Your task to perform on an android device: add a label to a message in the gmail app Image 0: 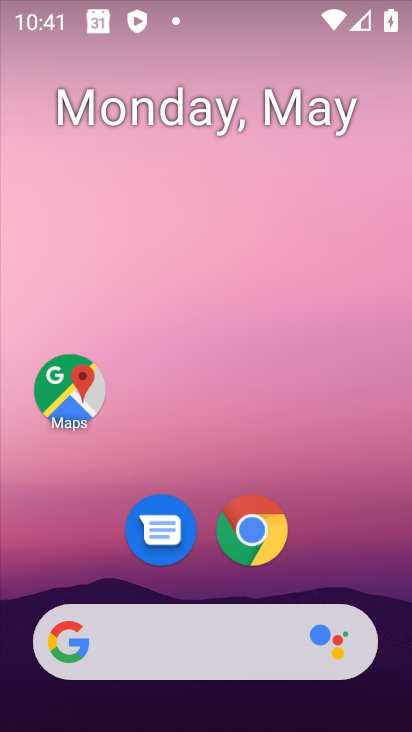
Step 0: drag from (324, 547) to (265, 48)
Your task to perform on an android device: add a label to a message in the gmail app Image 1: 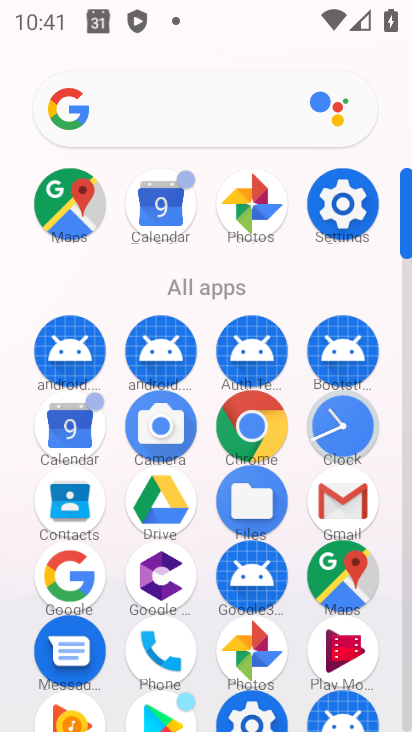
Step 1: click (340, 502)
Your task to perform on an android device: add a label to a message in the gmail app Image 2: 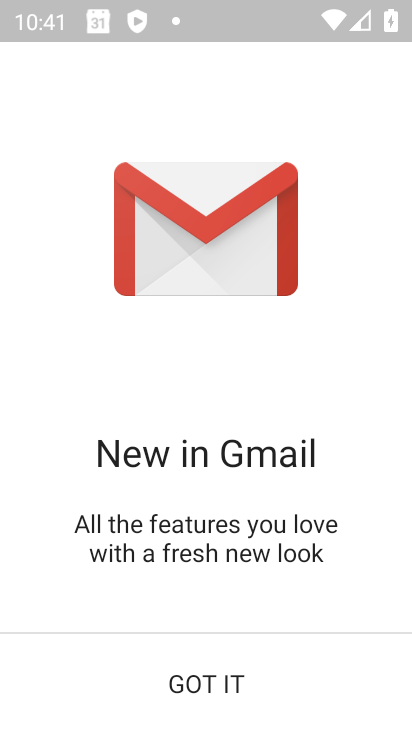
Step 2: click (208, 678)
Your task to perform on an android device: add a label to a message in the gmail app Image 3: 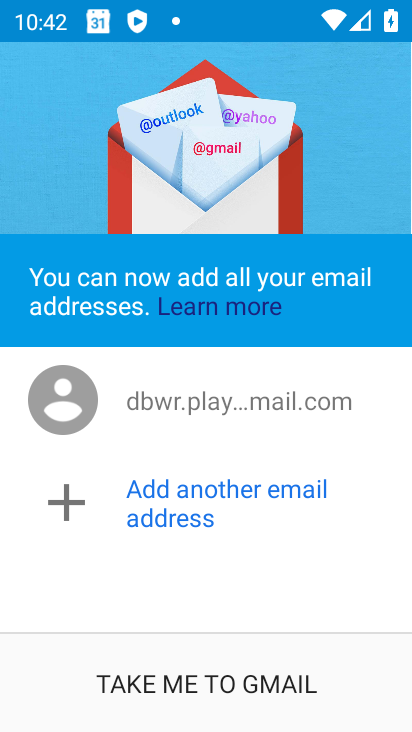
Step 3: click (208, 678)
Your task to perform on an android device: add a label to a message in the gmail app Image 4: 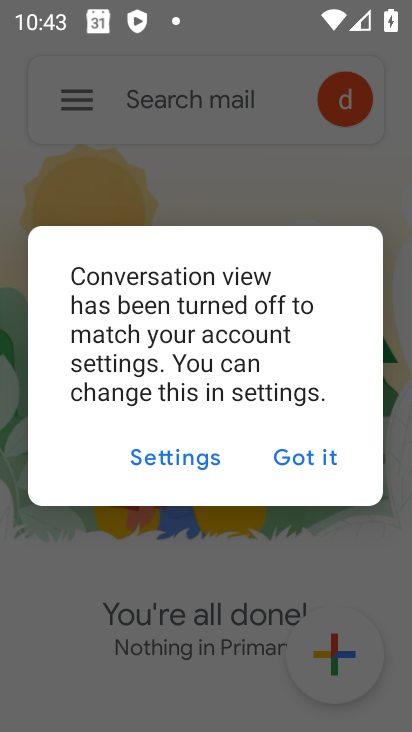
Step 4: click (284, 461)
Your task to perform on an android device: add a label to a message in the gmail app Image 5: 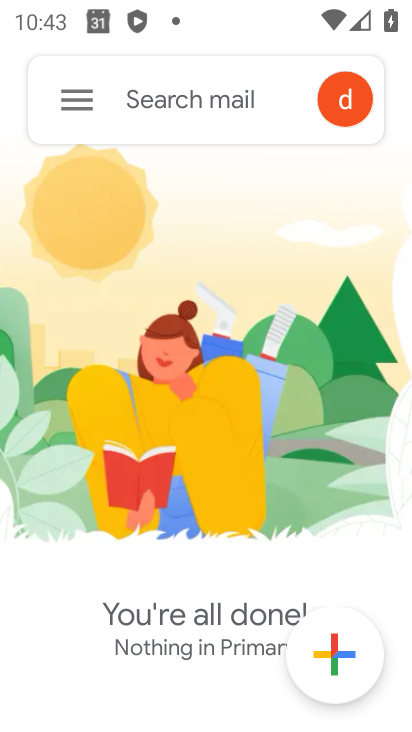
Step 5: click (65, 106)
Your task to perform on an android device: add a label to a message in the gmail app Image 6: 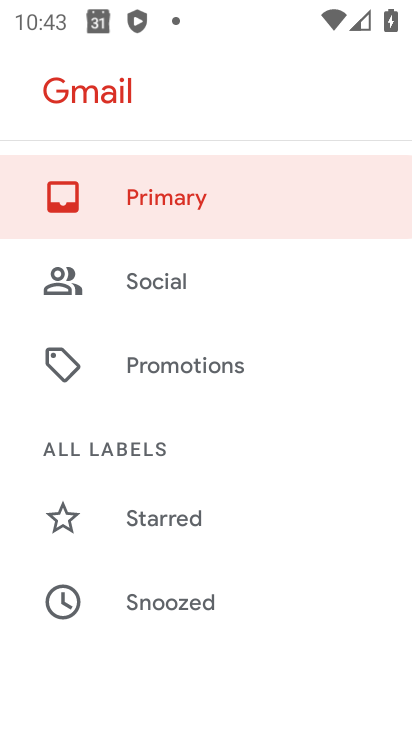
Step 6: drag from (205, 488) to (207, 365)
Your task to perform on an android device: add a label to a message in the gmail app Image 7: 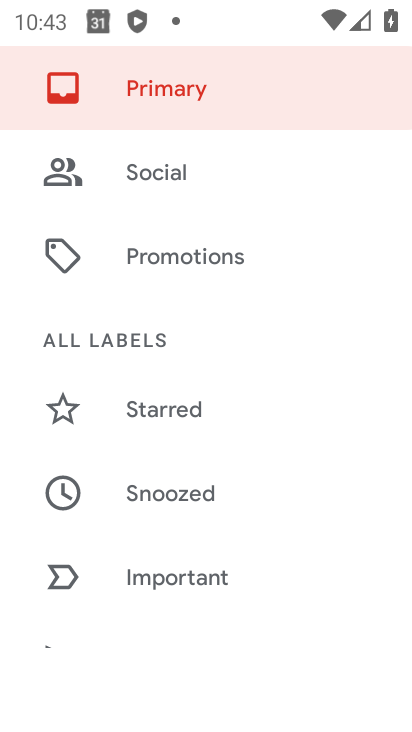
Step 7: click (204, 483)
Your task to perform on an android device: add a label to a message in the gmail app Image 8: 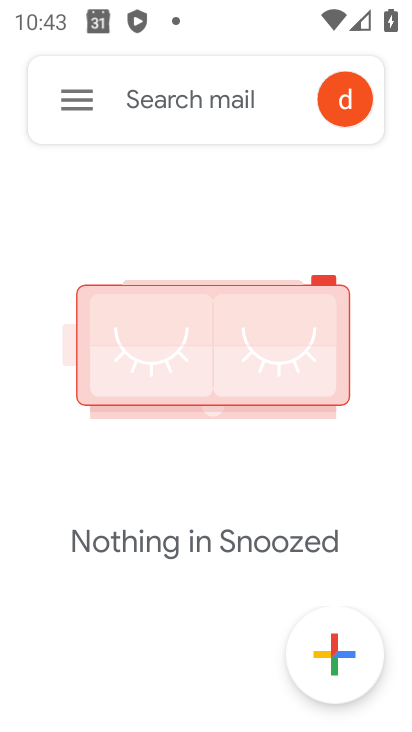
Step 8: click (63, 102)
Your task to perform on an android device: add a label to a message in the gmail app Image 9: 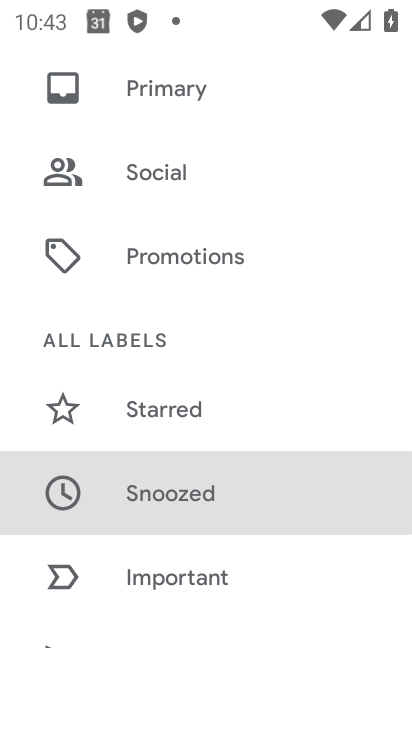
Step 9: drag from (171, 603) to (214, 360)
Your task to perform on an android device: add a label to a message in the gmail app Image 10: 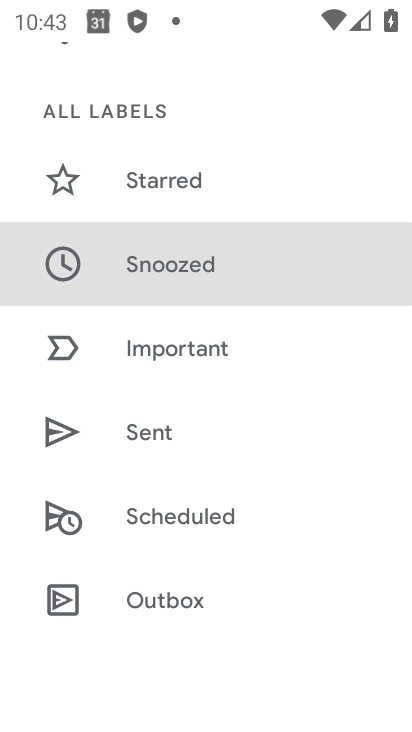
Step 10: drag from (189, 598) to (283, 338)
Your task to perform on an android device: add a label to a message in the gmail app Image 11: 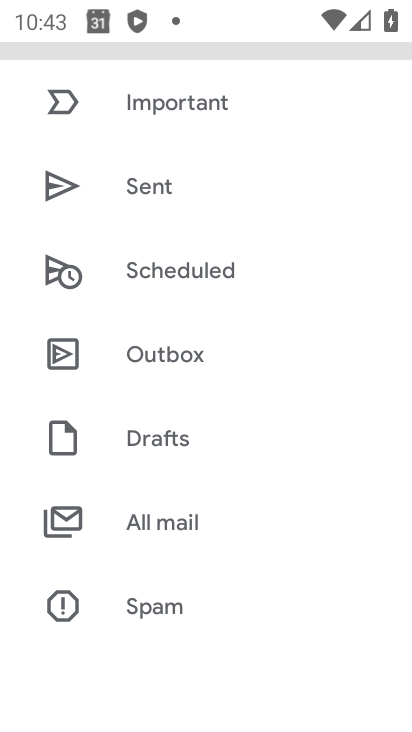
Step 11: click (179, 523)
Your task to perform on an android device: add a label to a message in the gmail app Image 12: 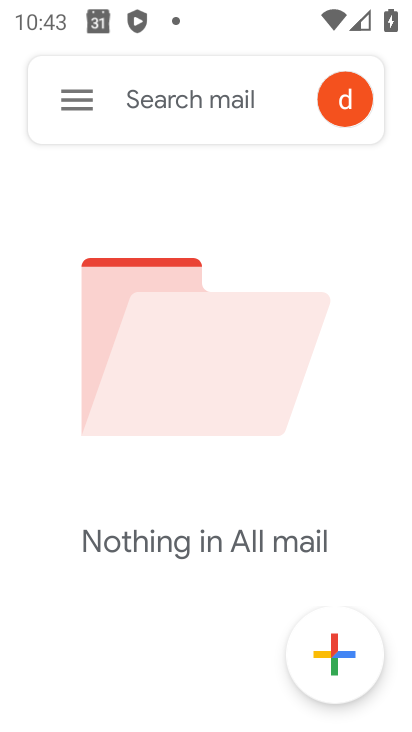
Step 12: task complete